Your task to perform on an android device: What's the weather going to be tomorrow? Image 0: 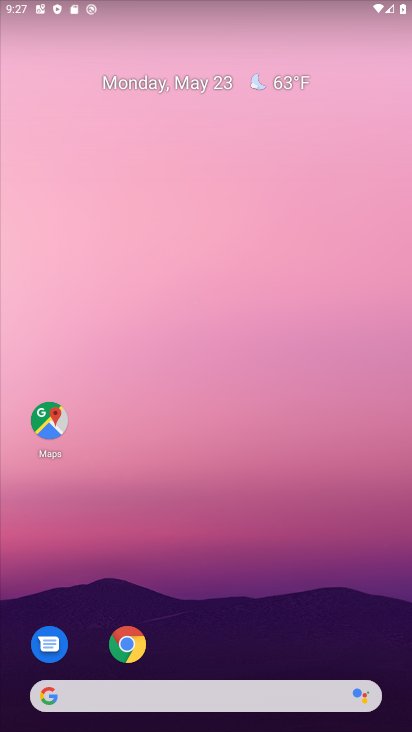
Step 0: press home button
Your task to perform on an android device: What's the weather going to be tomorrow? Image 1: 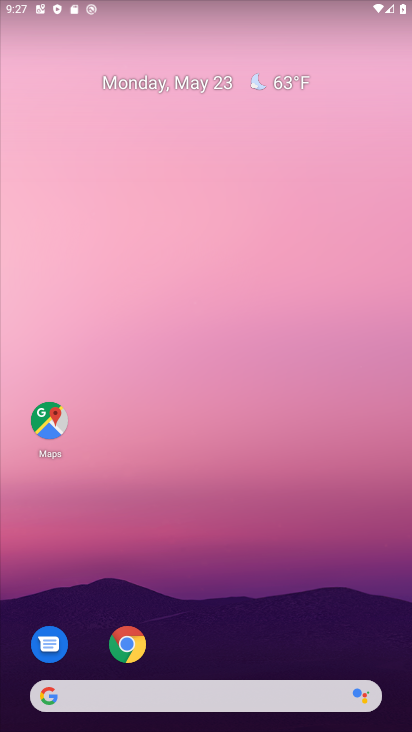
Step 1: click (294, 73)
Your task to perform on an android device: What's the weather going to be tomorrow? Image 2: 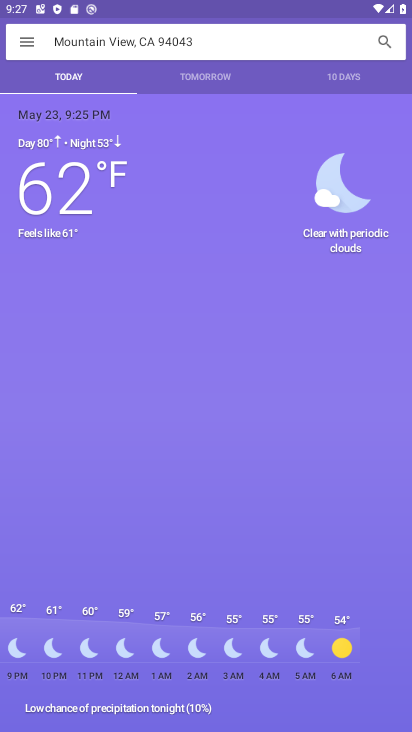
Step 2: click (214, 82)
Your task to perform on an android device: What's the weather going to be tomorrow? Image 3: 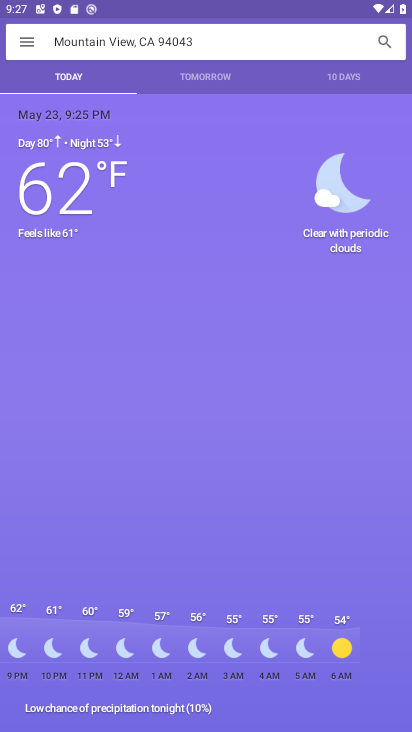
Step 3: click (204, 72)
Your task to perform on an android device: What's the weather going to be tomorrow? Image 4: 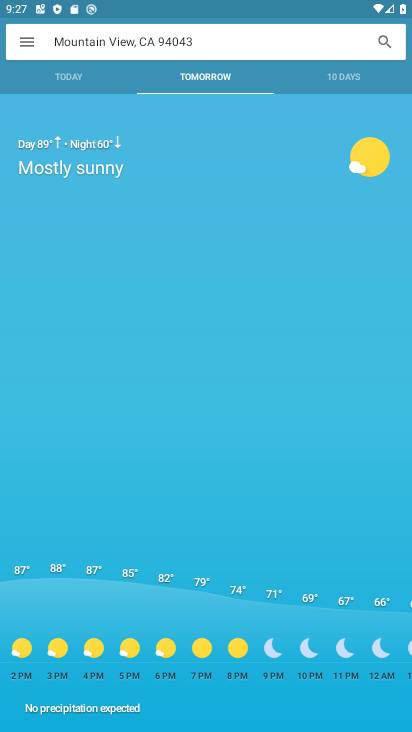
Step 4: drag from (190, 559) to (243, 151)
Your task to perform on an android device: What's the weather going to be tomorrow? Image 5: 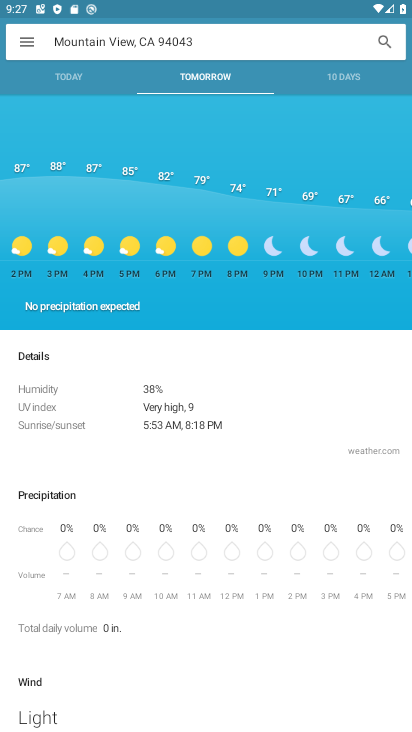
Step 5: drag from (320, 256) to (47, 240)
Your task to perform on an android device: What's the weather going to be tomorrow? Image 6: 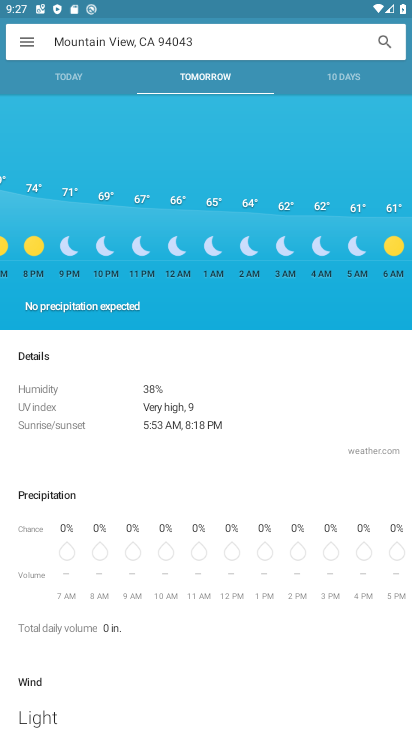
Step 6: click (37, 239)
Your task to perform on an android device: What's the weather going to be tomorrow? Image 7: 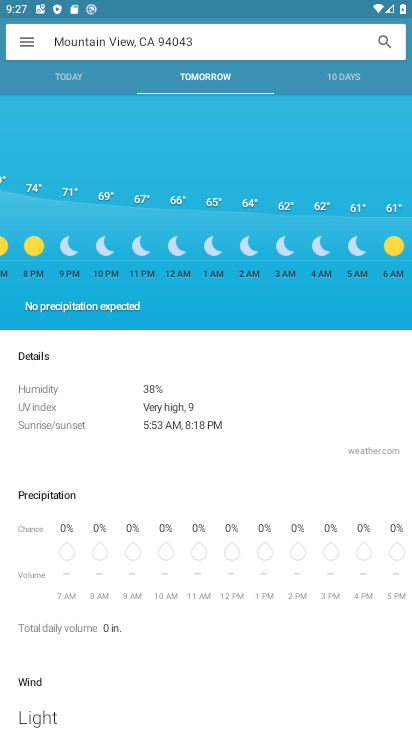
Step 7: task complete